Your task to perform on an android device: Open Reddit.com Image 0: 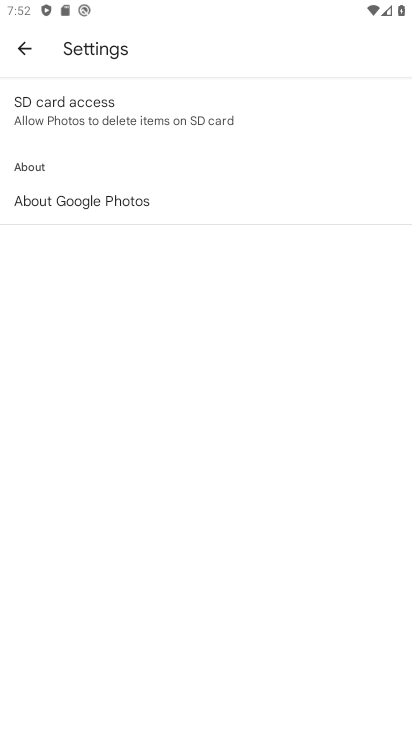
Step 0: press home button
Your task to perform on an android device: Open Reddit.com Image 1: 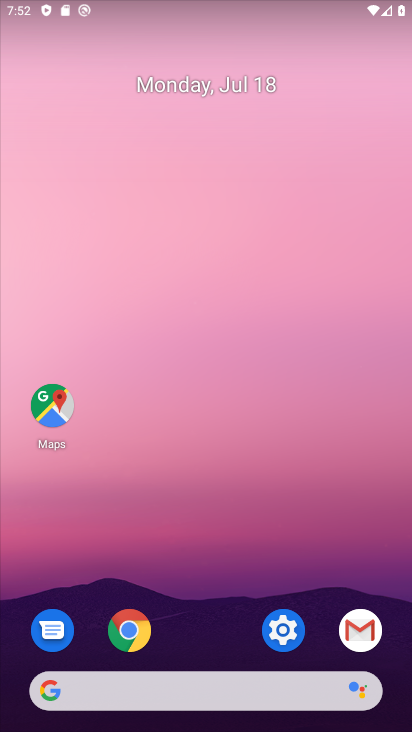
Step 1: click (133, 636)
Your task to perform on an android device: Open Reddit.com Image 2: 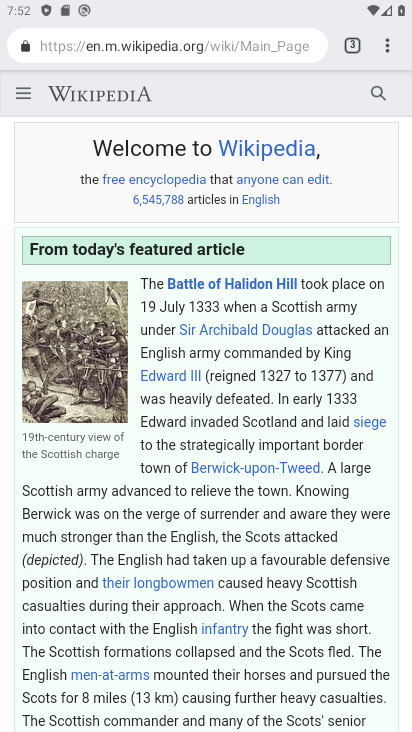
Step 2: click (161, 48)
Your task to perform on an android device: Open Reddit.com Image 3: 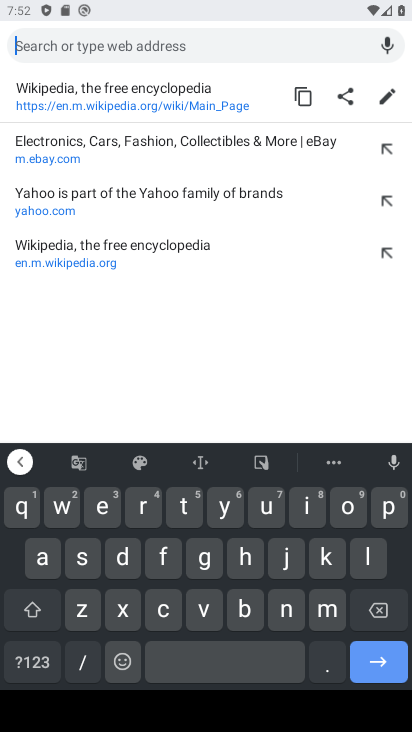
Step 3: click (140, 510)
Your task to perform on an android device: Open Reddit.com Image 4: 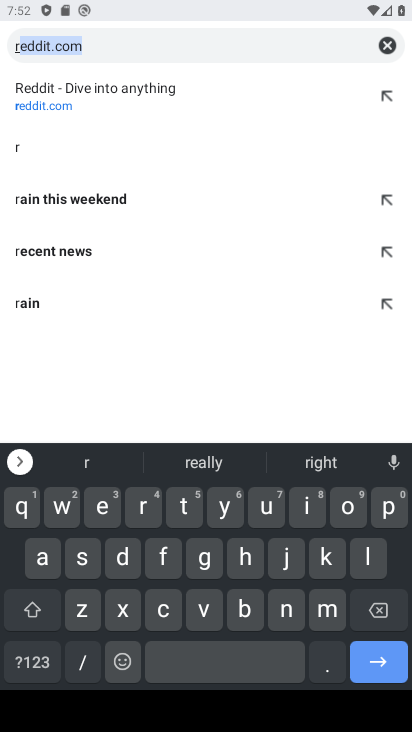
Step 4: click (102, 511)
Your task to perform on an android device: Open Reddit.com Image 5: 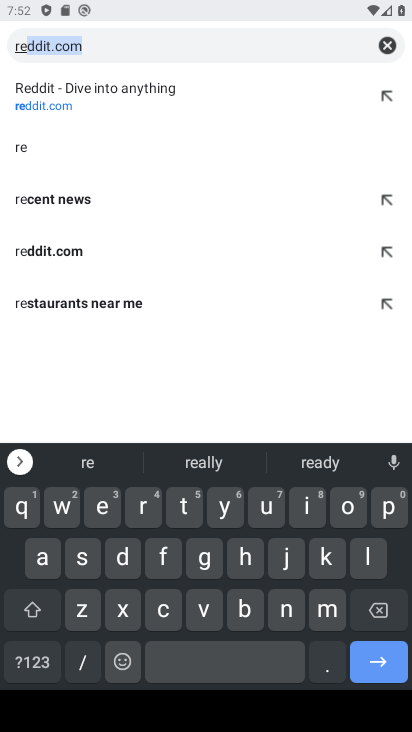
Step 5: click (130, 47)
Your task to perform on an android device: Open Reddit.com Image 6: 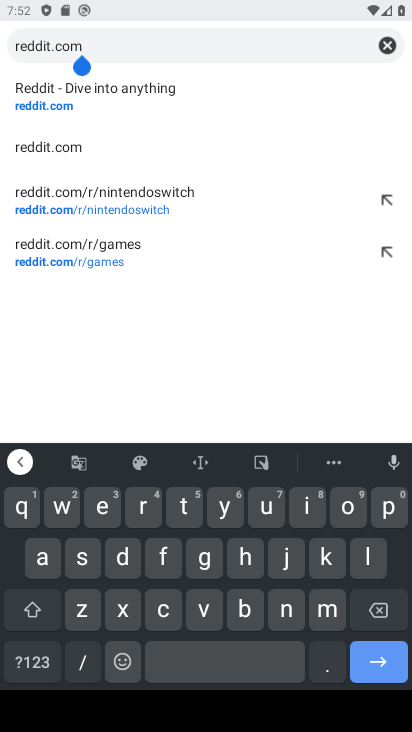
Step 6: click (374, 673)
Your task to perform on an android device: Open Reddit.com Image 7: 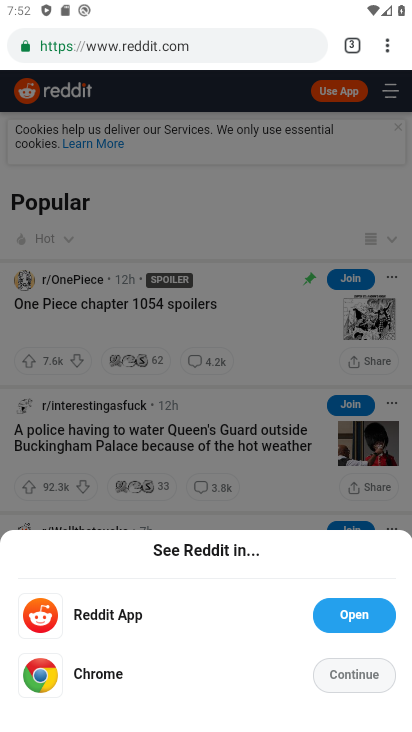
Step 7: click (353, 680)
Your task to perform on an android device: Open Reddit.com Image 8: 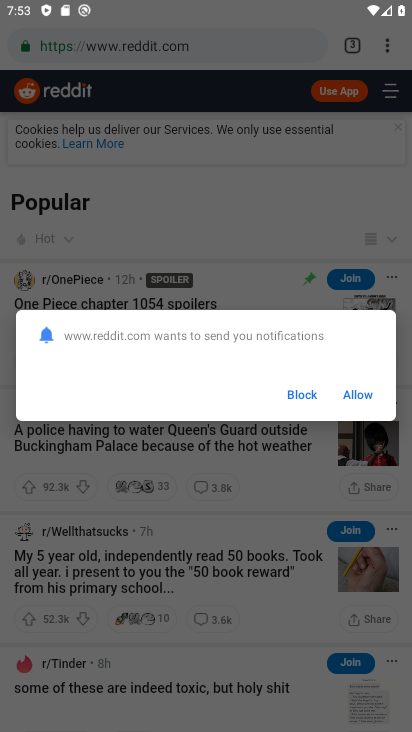
Step 8: click (344, 396)
Your task to perform on an android device: Open Reddit.com Image 9: 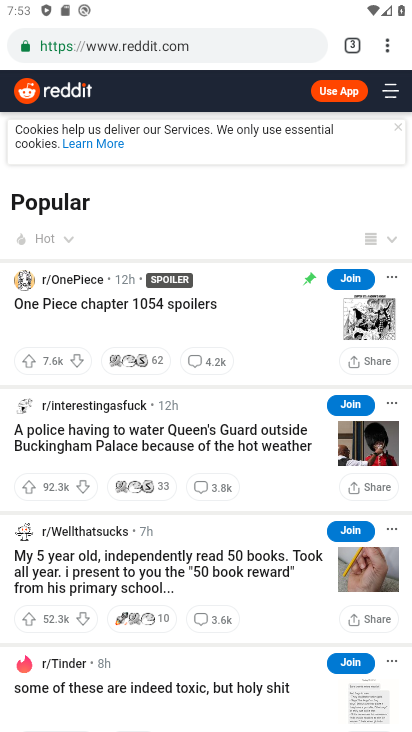
Step 9: task complete